Your task to perform on an android device: Go to Wikipedia Image 0: 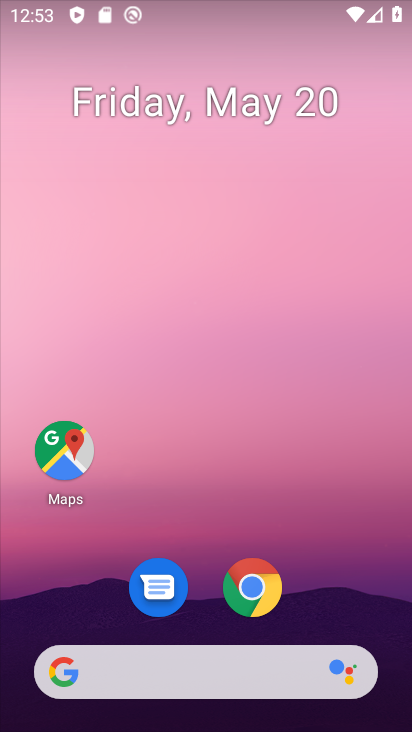
Step 0: click (252, 587)
Your task to perform on an android device: Go to Wikipedia Image 1: 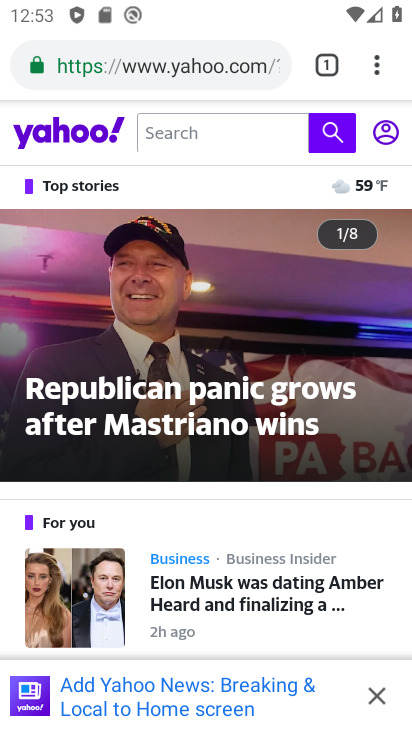
Step 1: click (370, 54)
Your task to perform on an android device: Go to Wikipedia Image 2: 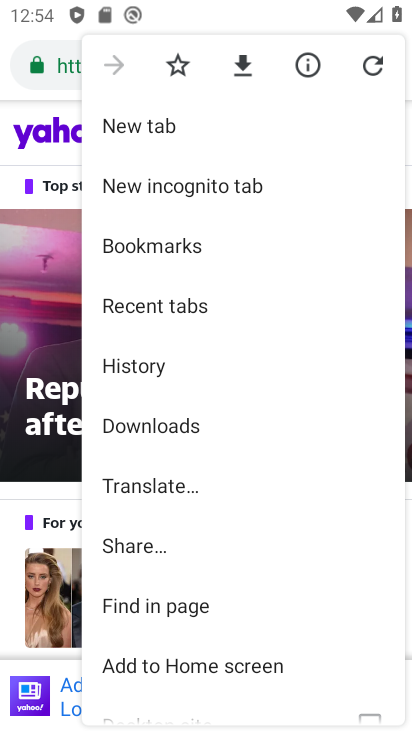
Step 2: click (127, 126)
Your task to perform on an android device: Go to Wikipedia Image 3: 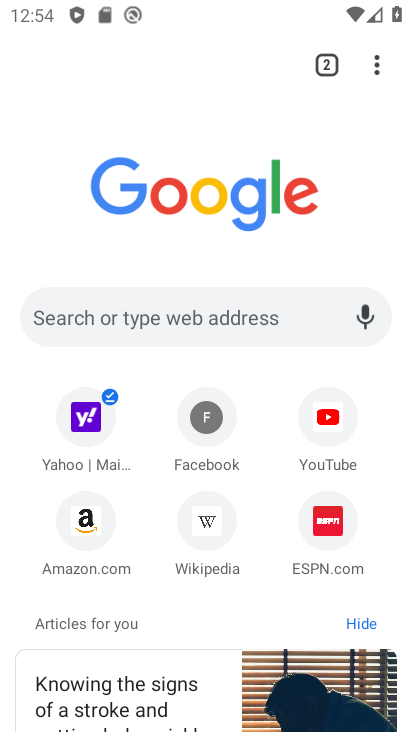
Step 3: click (211, 515)
Your task to perform on an android device: Go to Wikipedia Image 4: 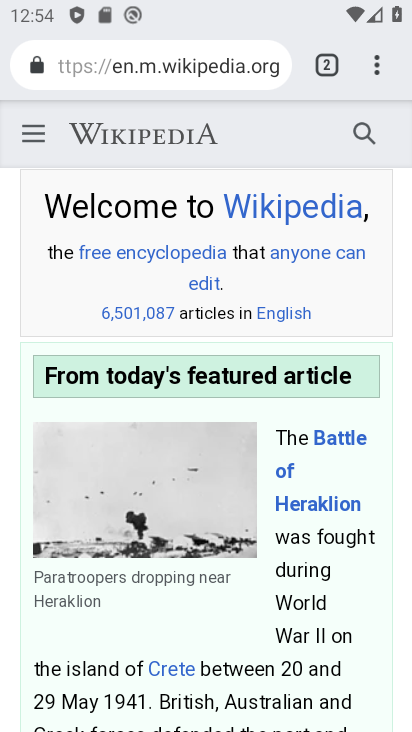
Step 4: task complete